Your task to perform on an android device: set an alarm Image 0: 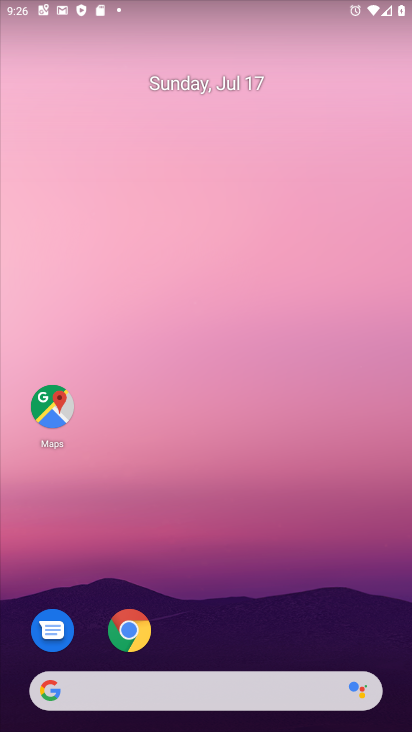
Step 0: drag from (355, 612) to (340, 114)
Your task to perform on an android device: set an alarm Image 1: 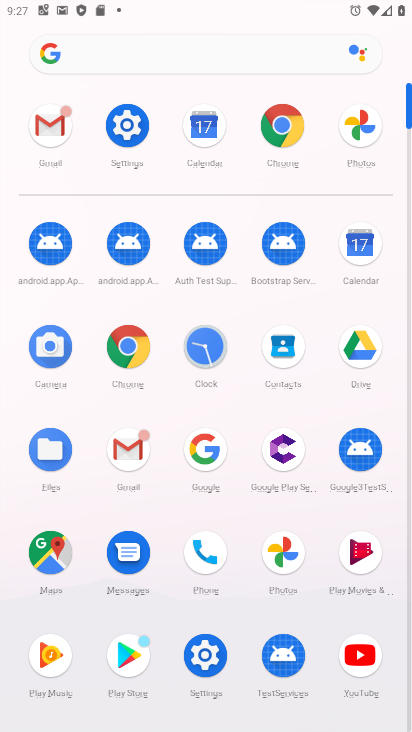
Step 1: click (214, 360)
Your task to perform on an android device: set an alarm Image 2: 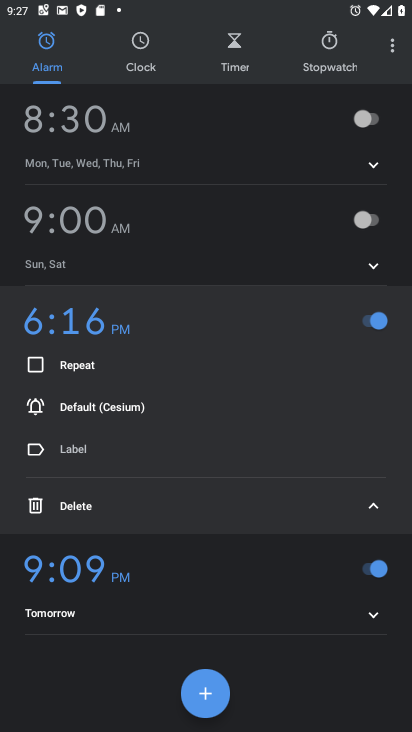
Step 2: click (194, 700)
Your task to perform on an android device: set an alarm Image 3: 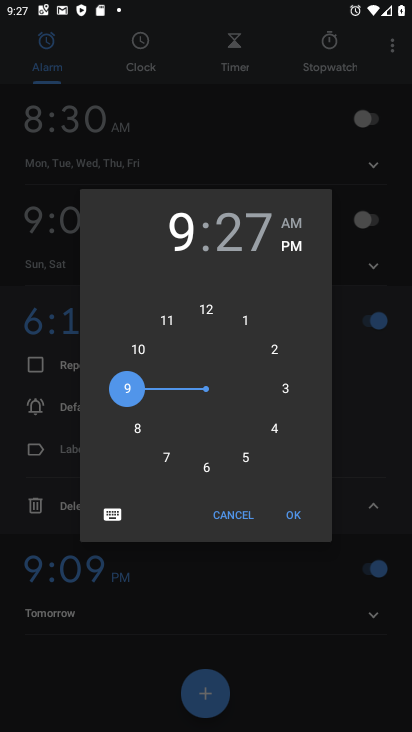
Step 3: click (296, 520)
Your task to perform on an android device: set an alarm Image 4: 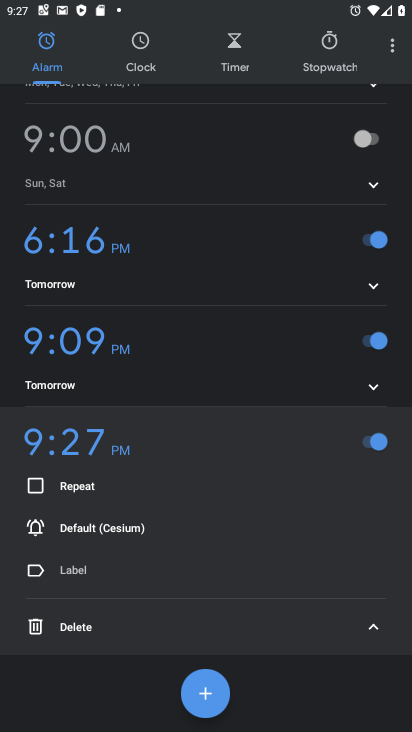
Step 4: task complete